Your task to perform on an android device: visit the assistant section in the google photos Image 0: 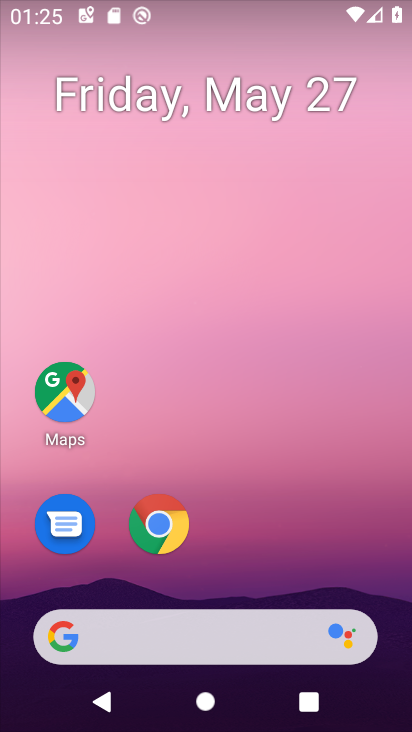
Step 0: drag from (228, 531) to (216, 16)
Your task to perform on an android device: visit the assistant section in the google photos Image 1: 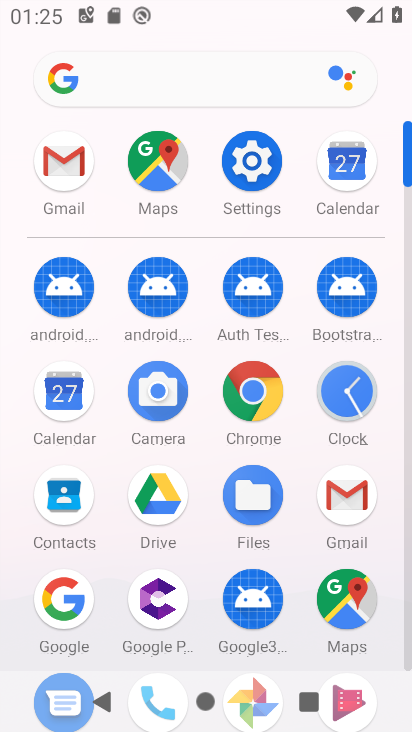
Step 1: drag from (203, 434) to (215, 169)
Your task to perform on an android device: visit the assistant section in the google photos Image 2: 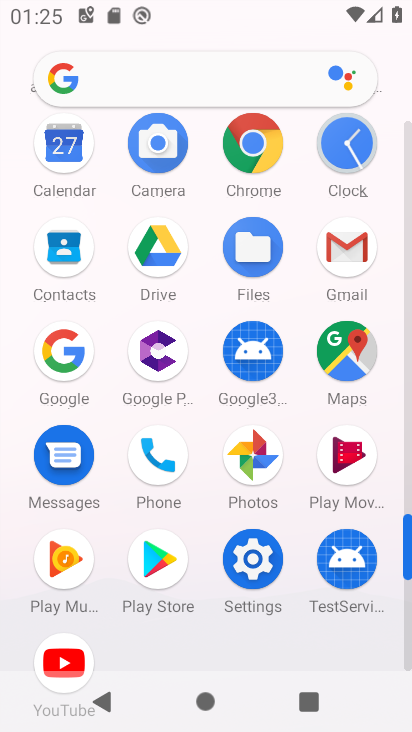
Step 2: click (265, 440)
Your task to perform on an android device: visit the assistant section in the google photos Image 3: 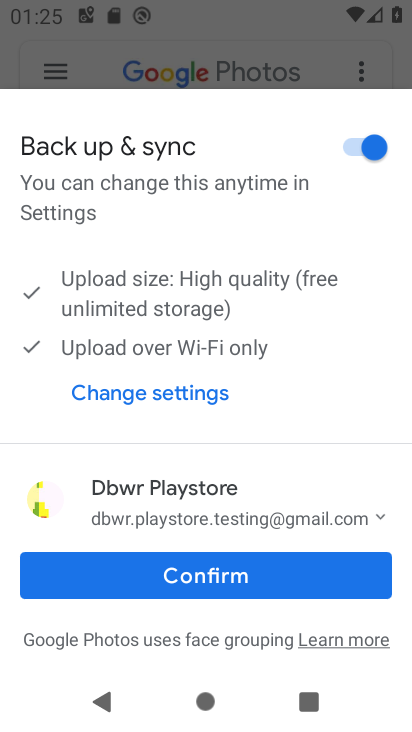
Step 3: click (261, 582)
Your task to perform on an android device: visit the assistant section in the google photos Image 4: 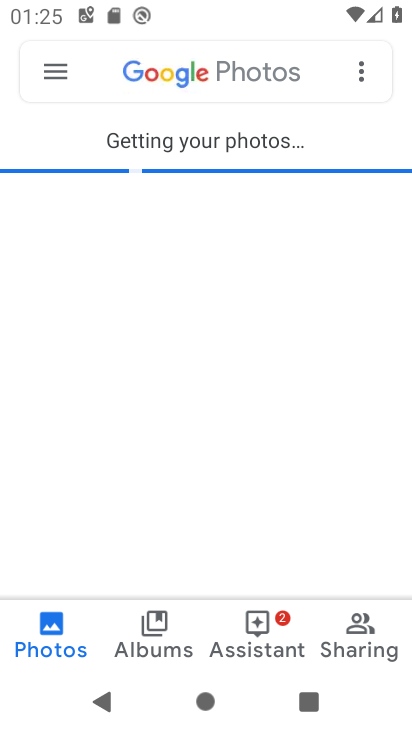
Step 4: click (247, 647)
Your task to perform on an android device: visit the assistant section in the google photos Image 5: 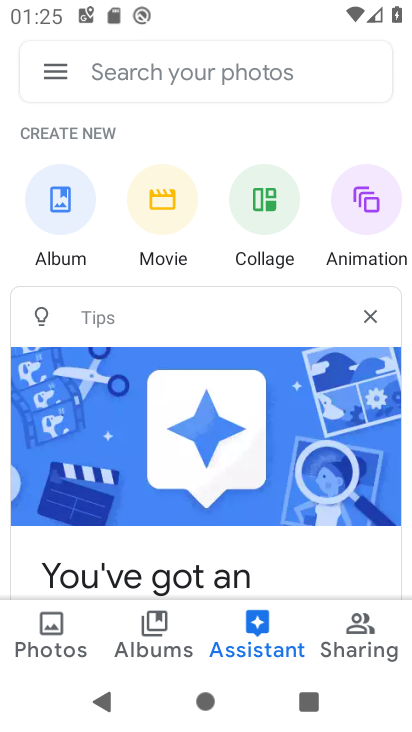
Step 5: task complete